Your task to perform on an android device: Open battery settings Image 0: 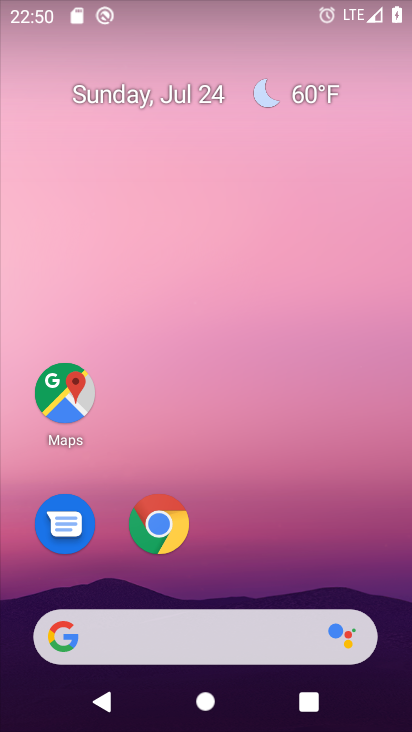
Step 0: drag from (284, 370) to (411, 647)
Your task to perform on an android device: Open battery settings Image 1: 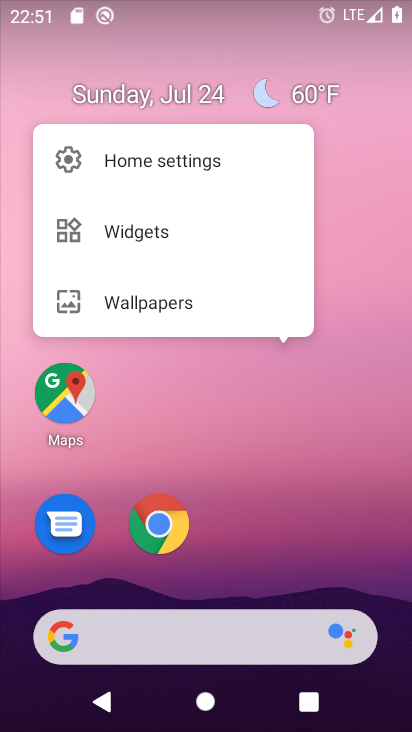
Step 1: click (340, 487)
Your task to perform on an android device: Open battery settings Image 2: 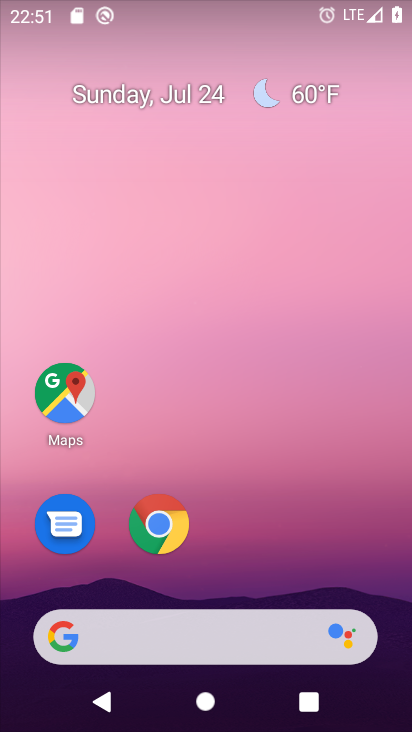
Step 2: drag from (265, 555) to (318, 24)
Your task to perform on an android device: Open battery settings Image 3: 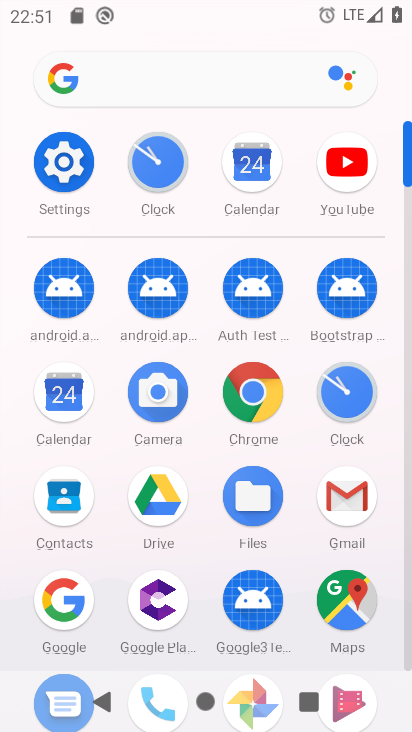
Step 3: click (66, 157)
Your task to perform on an android device: Open battery settings Image 4: 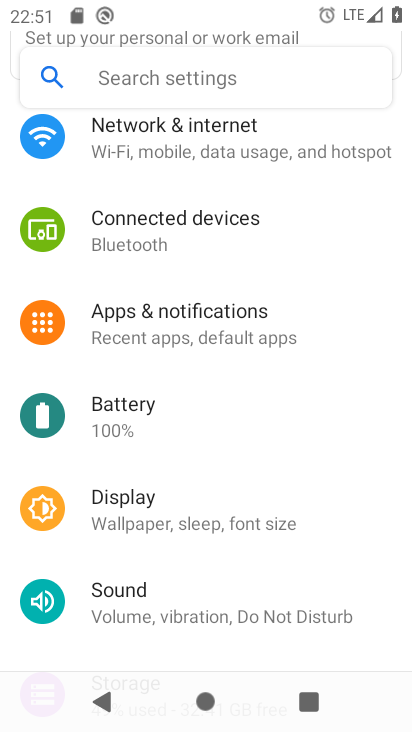
Step 4: click (120, 416)
Your task to perform on an android device: Open battery settings Image 5: 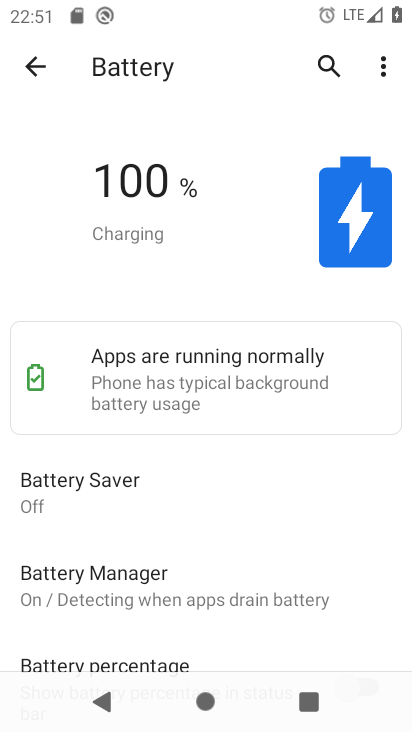
Step 5: task complete